Your task to perform on an android device: empty trash in the gmail app Image 0: 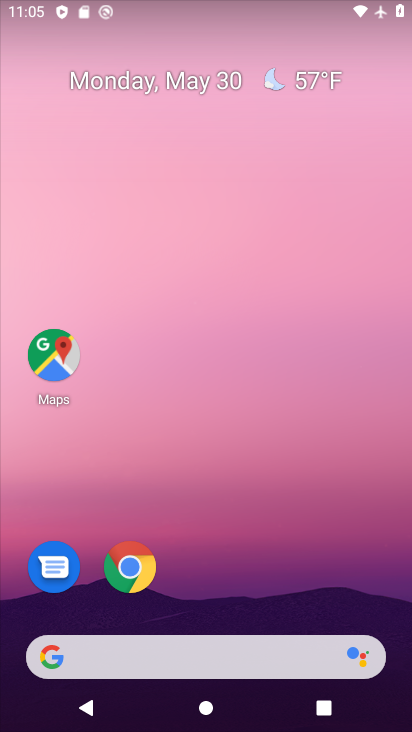
Step 0: drag from (206, 578) to (244, 141)
Your task to perform on an android device: empty trash in the gmail app Image 1: 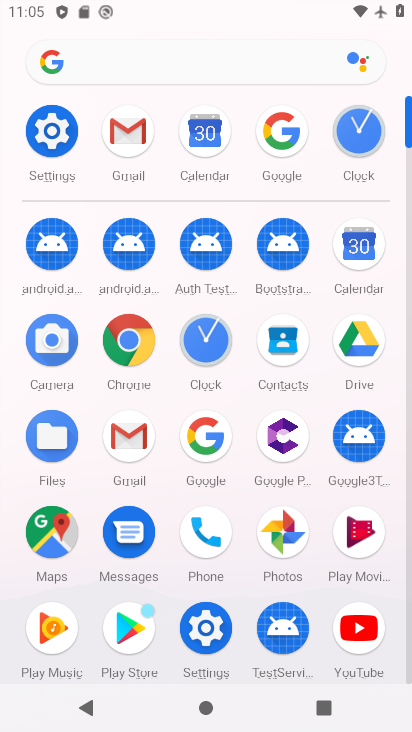
Step 1: click (143, 122)
Your task to perform on an android device: empty trash in the gmail app Image 2: 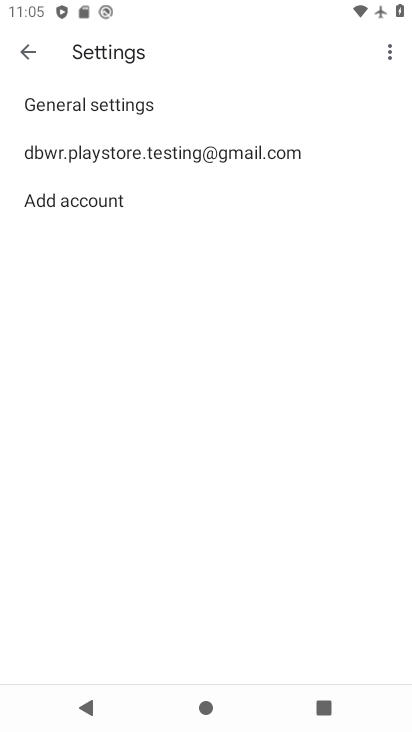
Step 2: click (23, 58)
Your task to perform on an android device: empty trash in the gmail app Image 3: 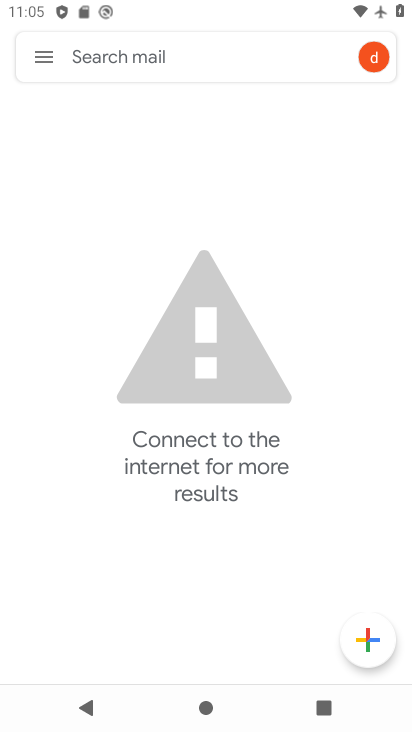
Step 3: click (32, 62)
Your task to perform on an android device: empty trash in the gmail app Image 4: 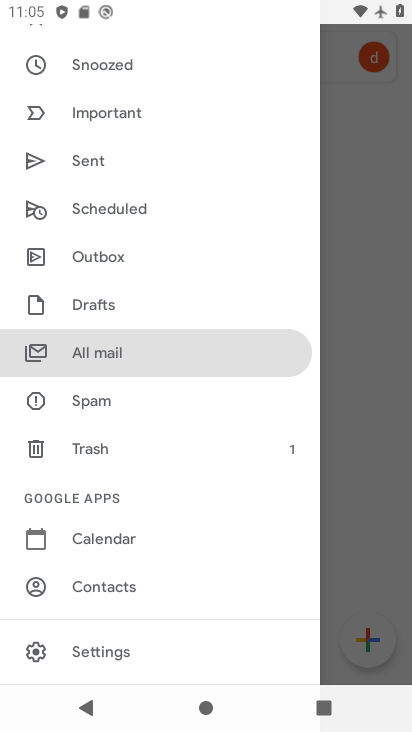
Step 4: click (135, 454)
Your task to perform on an android device: empty trash in the gmail app Image 5: 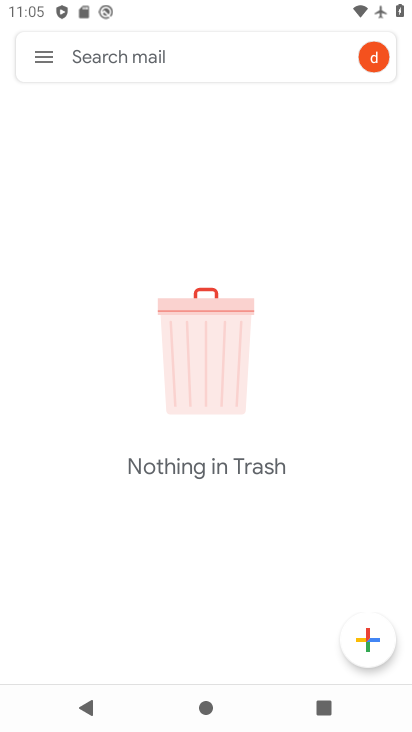
Step 5: task complete